Your task to perform on an android device: When is my next appointment? Image 0: 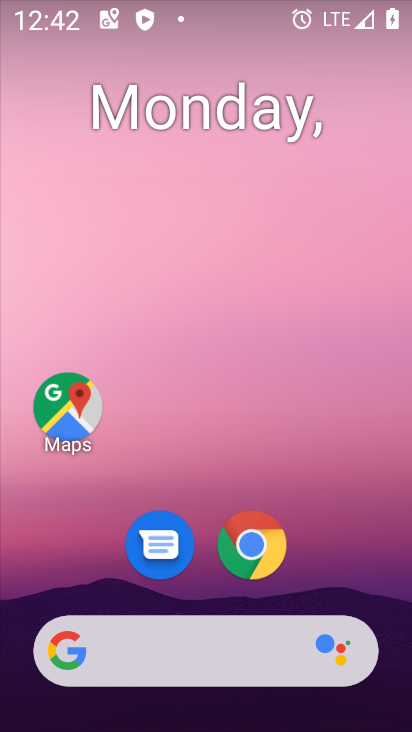
Step 0: drag from (377, 582) to (394, 188)
Your task to perform on an android device: When is my next appointment? Image 1: 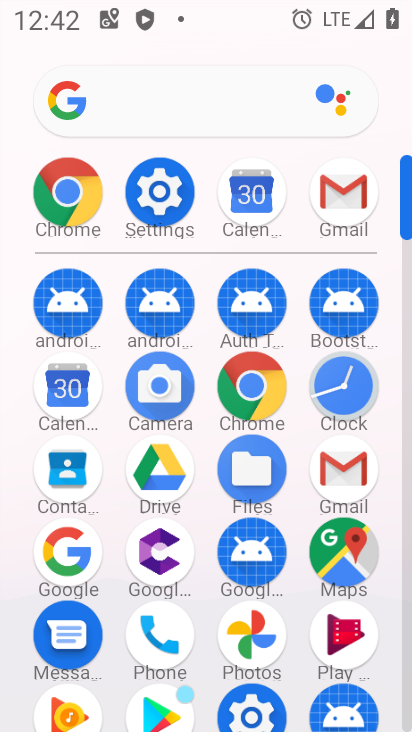
Step 1: click (64, 403)
Your task to perform on an android device: When is my next appointment? Image 2: 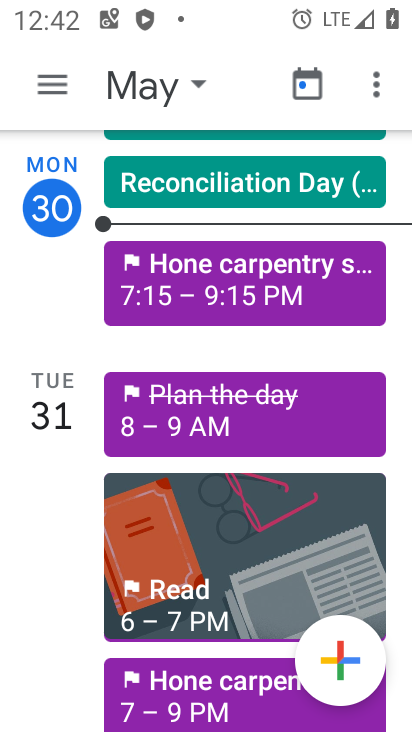
Step 2: click (236, 269)
Your task to perform on an android device: When is my next appointment? Image 3: 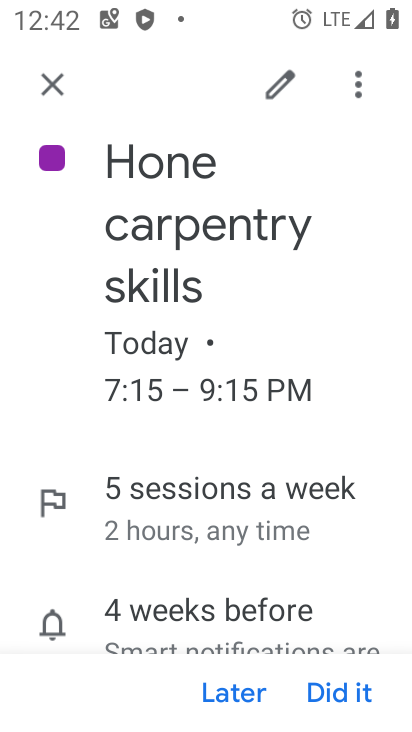
Step 3: task complete